Your task to perform on an android device: Open eBay Image 0: 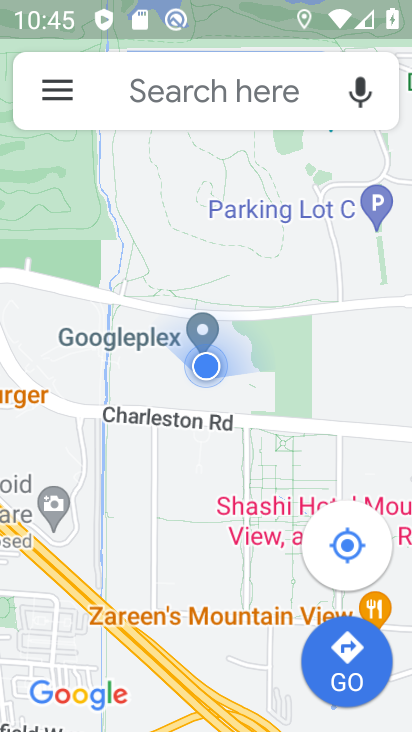
Step 0: press home button
Your task to perform on an android device: Open eBay Image 1: 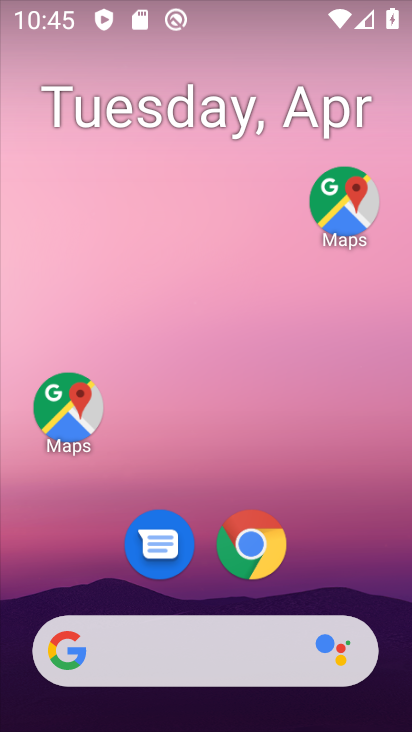
Step 1: click (265, 555)
Your task to perform on an android device: Open eBay Image 2: 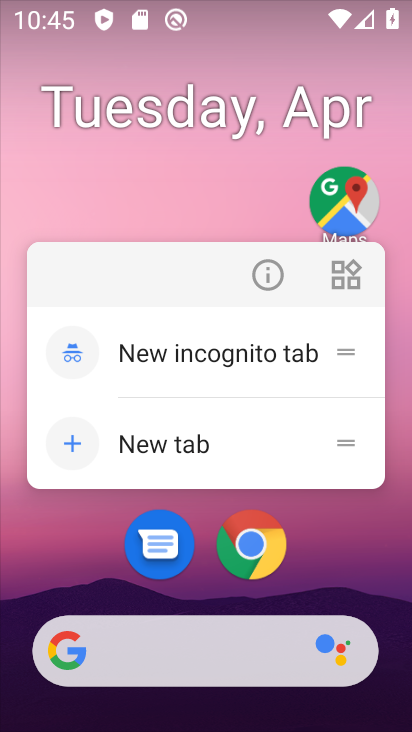
Step 2: click (251, 539)
Your task to perform on an android device: Open eBay Image 3: 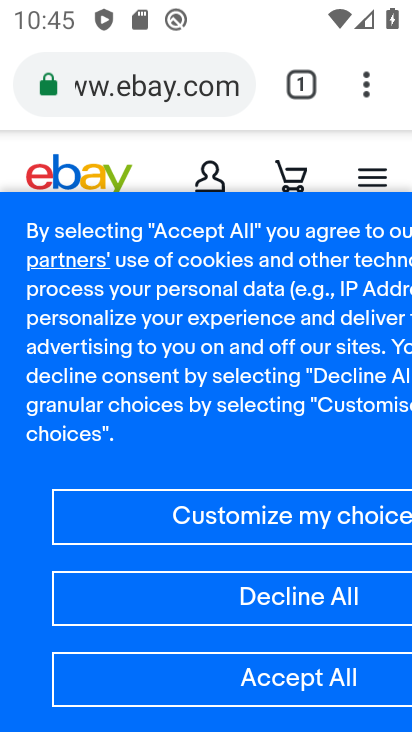
Step 3: task complete